Your task to perform on an android device: Do I have any events tomorrow? Image 0: 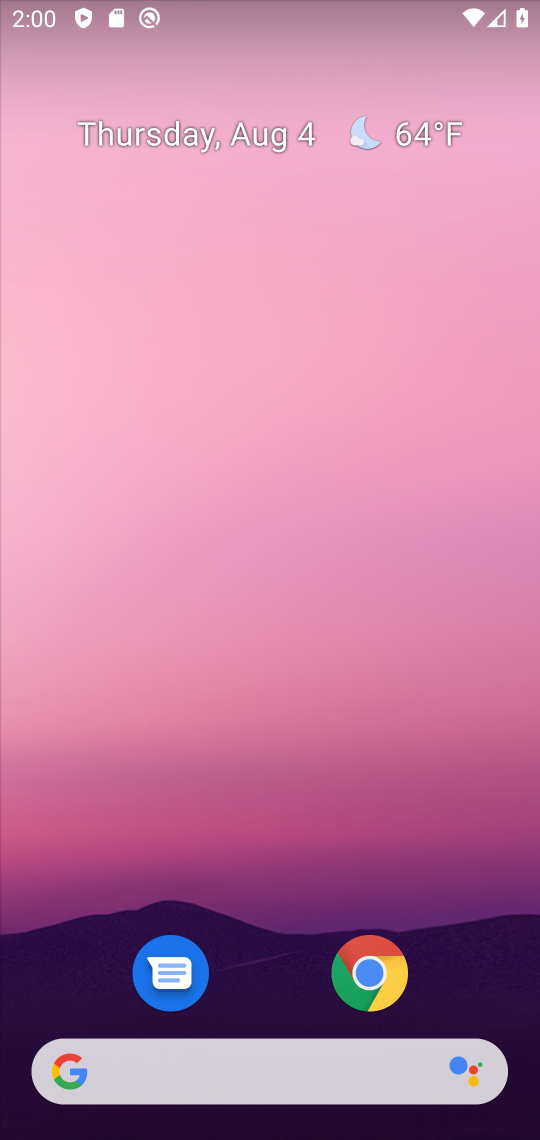
Step 0: drag from (265, 612) to (180, 9)
Your task to perform on an android device: Do I have any events tomorrow? Image 1: 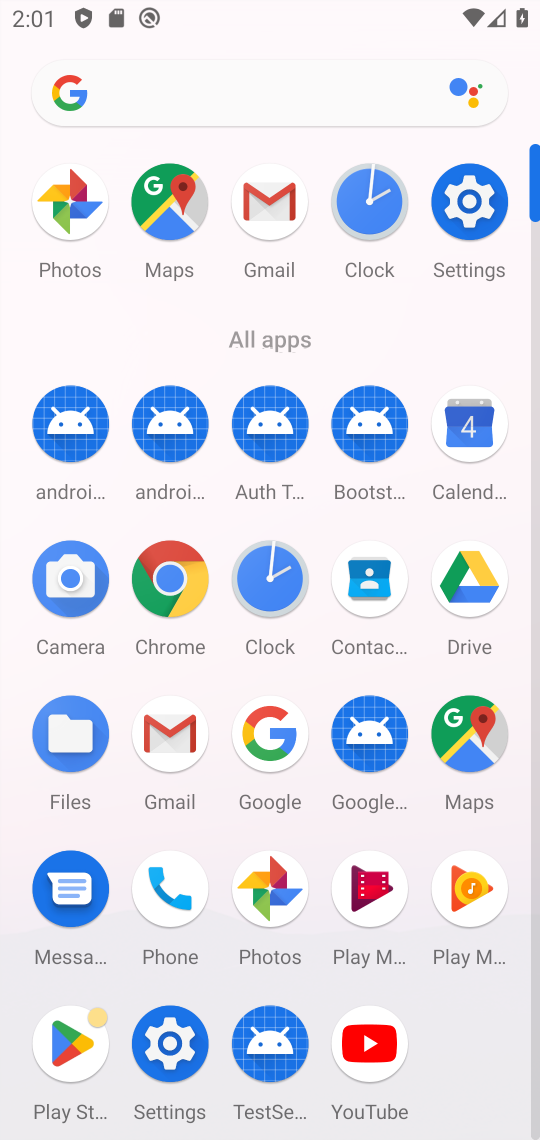
Step 1: click (454, 443)
Your task to perform on an android device: Do I have any events tomorrow? Image 2: 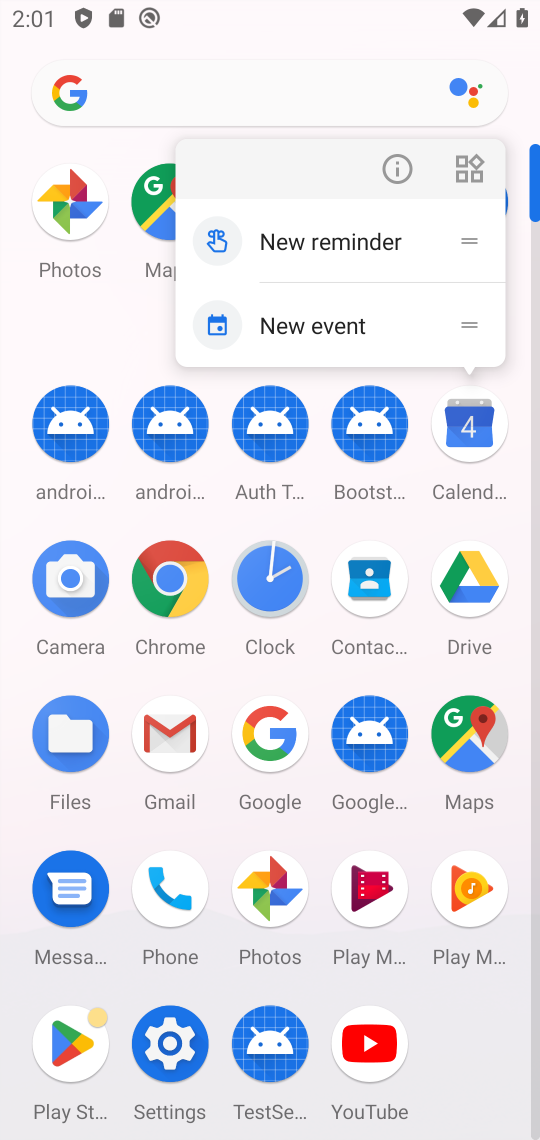
Step 2: click (448, 457)
Your task to perform on an android device: Do I have any events tomorrow? Image 3: 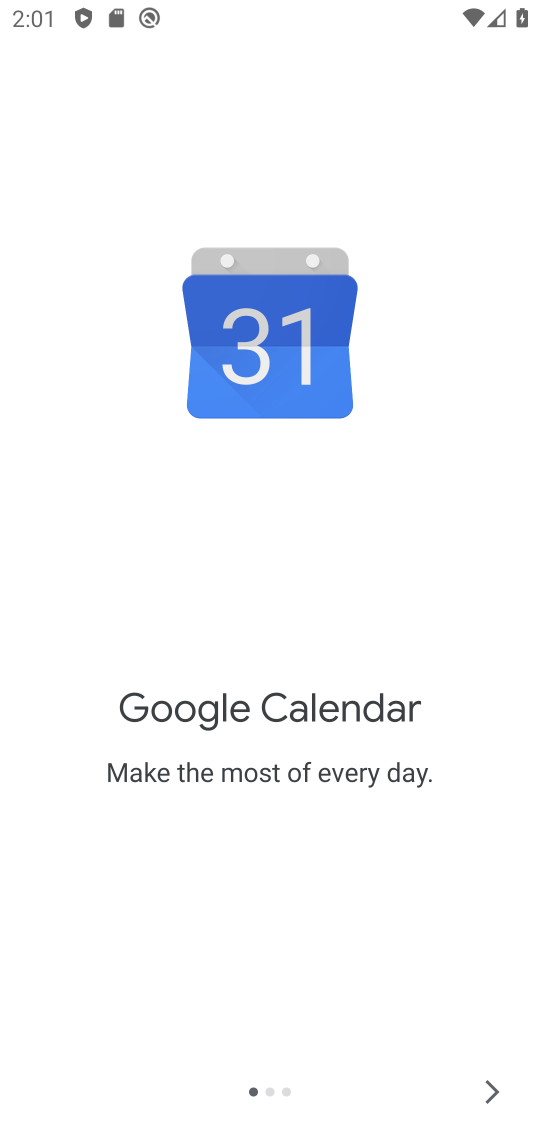
Step 3: click (497, 1090)
Your task to perform on an android device: Do I have any events tomorrow? Image 4: 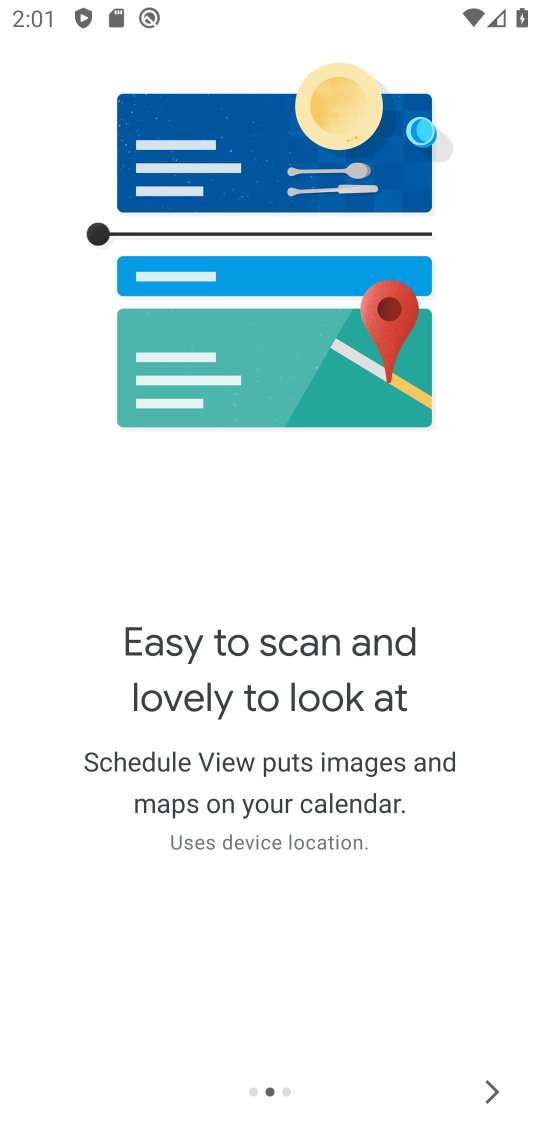
Step 4: click (487, 1085)
Your task to perform on an android device: Do I have any events tomorrow? Image 5: 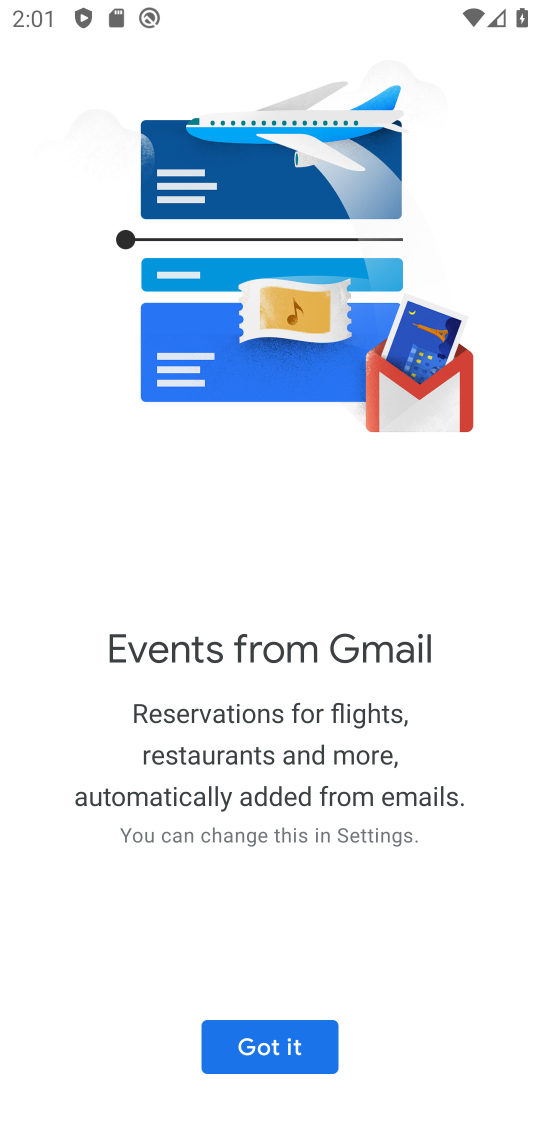
Step 5: click (268, 1056)
Your task to perform on an android device: Do I have any events tomorrow? Image 6: 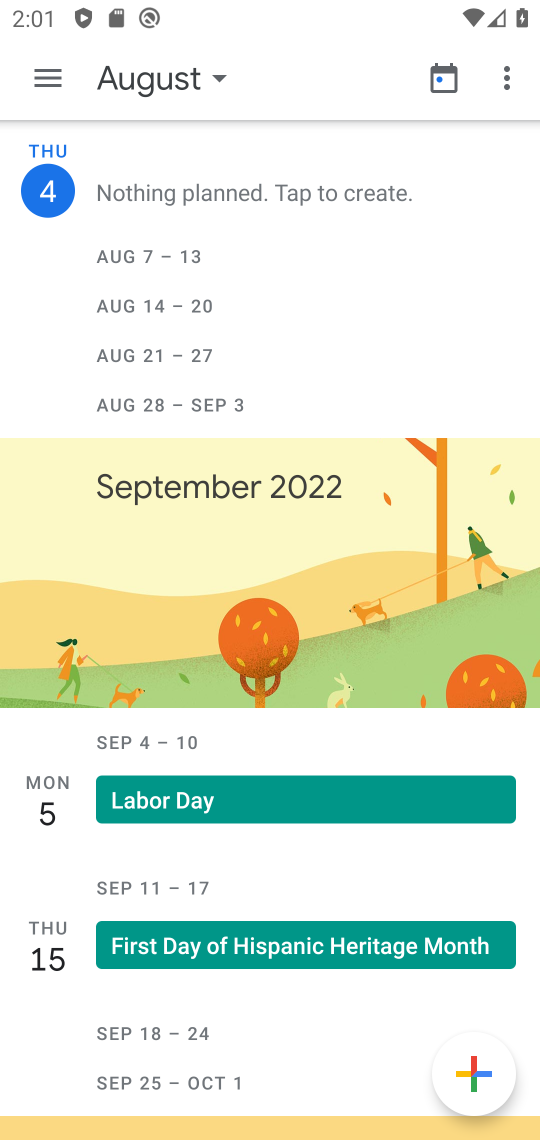
Step 6: click (51, 814)
Your task to perform on an android device: Do I have any events tomorrow? Image 7: 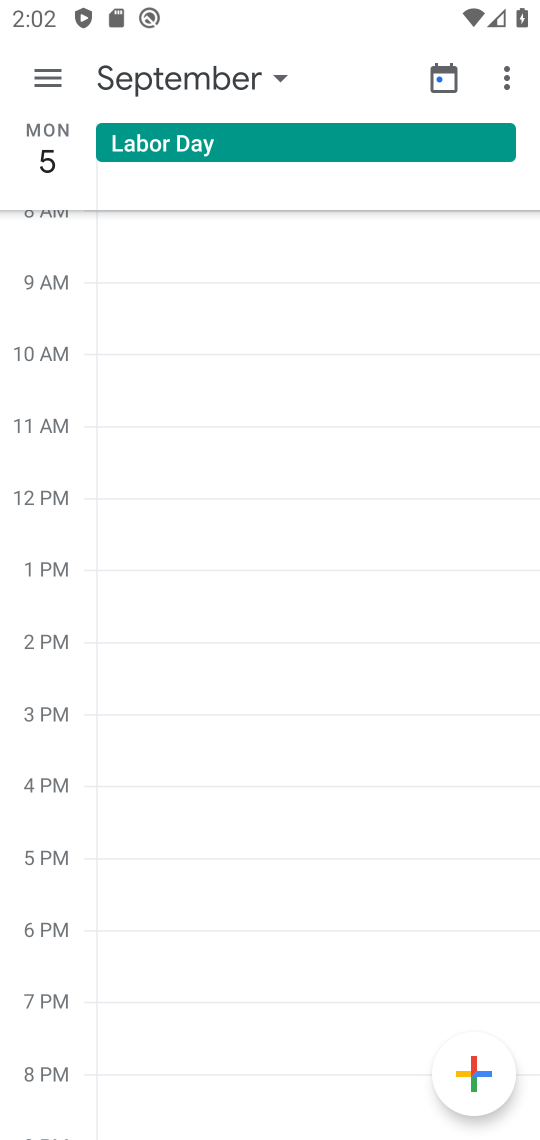
Step 7: task complete